Your task to perform on an android device: move a message to another label in the gmail app Image 0: 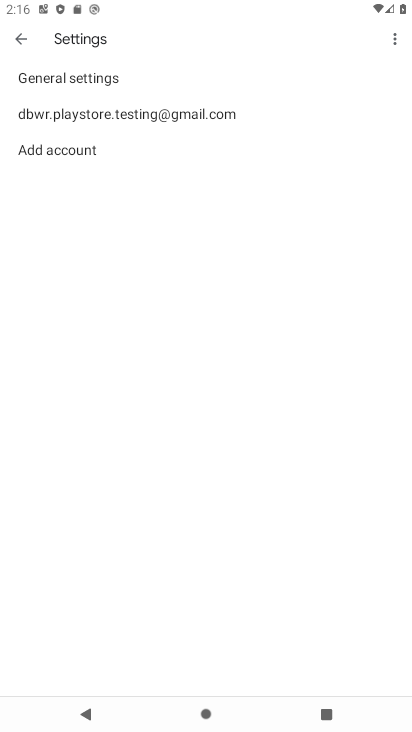
Step 0: press home button
Your task to perform on an android device: move a message to another label in the gmail app Image 1: 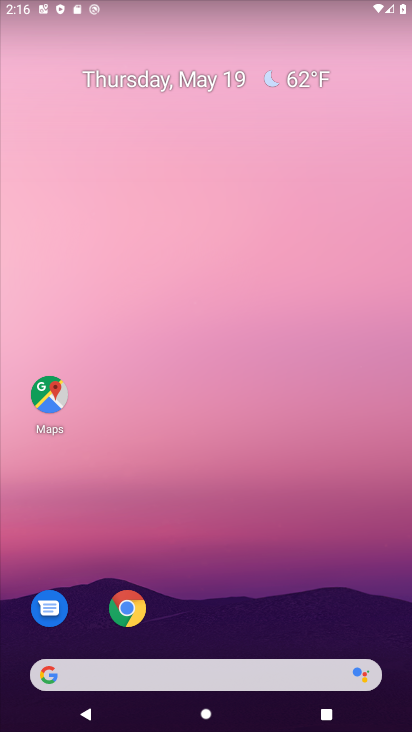
Step 1: drag from (296, 585) to (255, 45)
Your task to perform on an android device: move a message to another label in the gmail app Image 2: 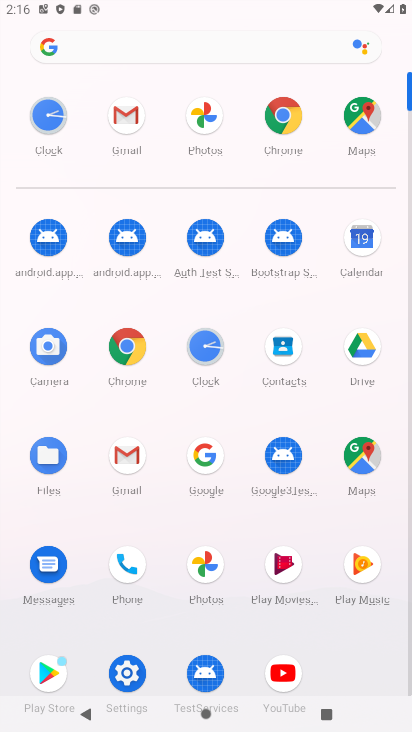
Step 2: click (137, 146)
Your task to perform on an android device: move a message to another label in the gmail app Image 3: 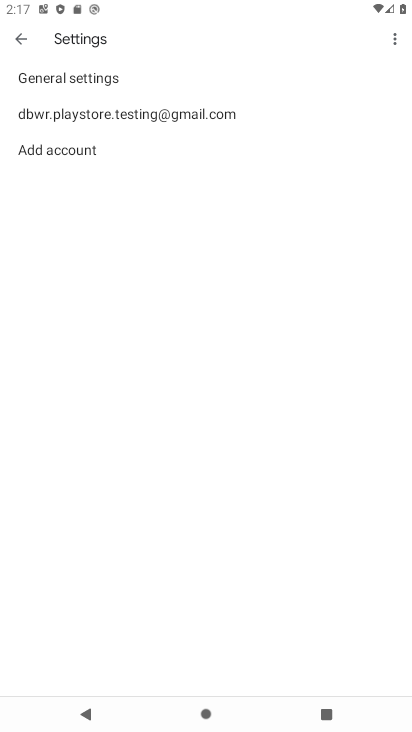
Step 3: click (24, 37)
Your task to perform on an android device: move a message to another label in the gmail app Image 4: 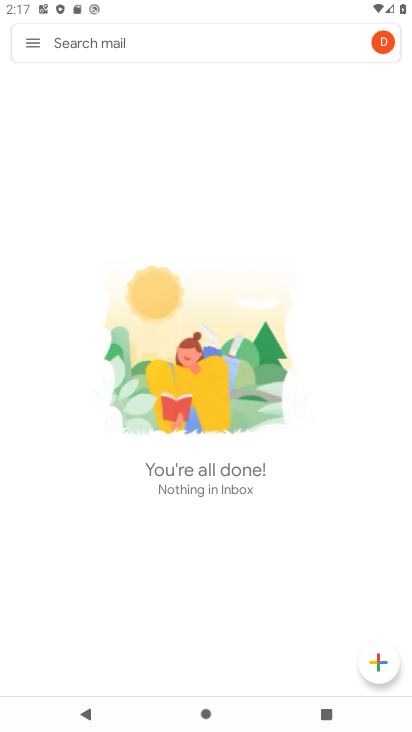
Step 4: click (23, 38)
Your task to perform on an android device: move a message to another label in the gmail app Image 5: 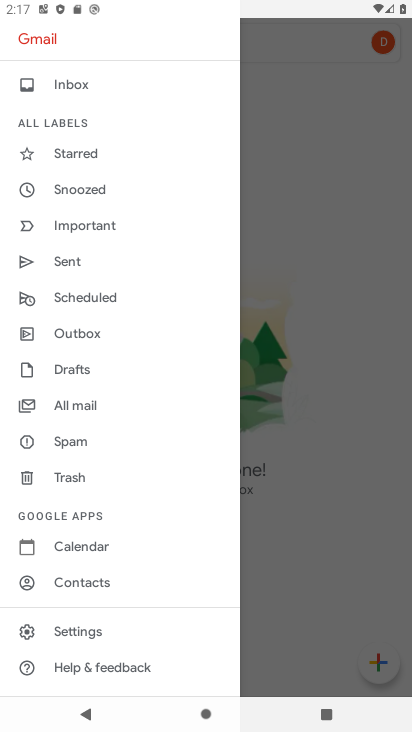
Step 5: click (98, 396)
Your task to perform on an android device: move a message to another label in the gmail app Image 6: 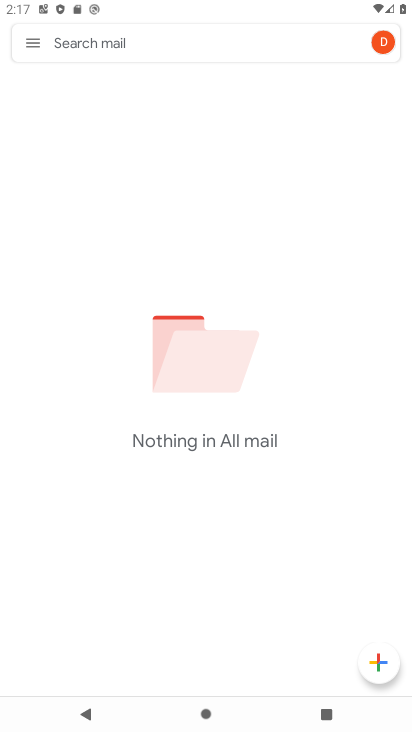
Step 6: task complete